Your task to perform on an android device: open a bookmark in the chrome app Image 0: 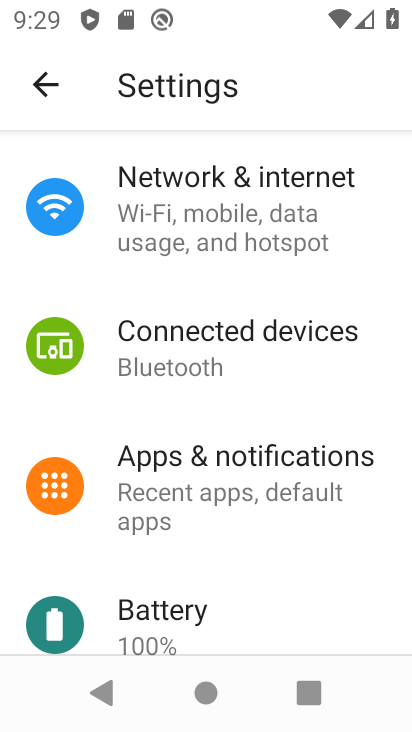
Step 0: press home button
Your task to perform on an android device: open a bookmark in the chrome app Image 1: 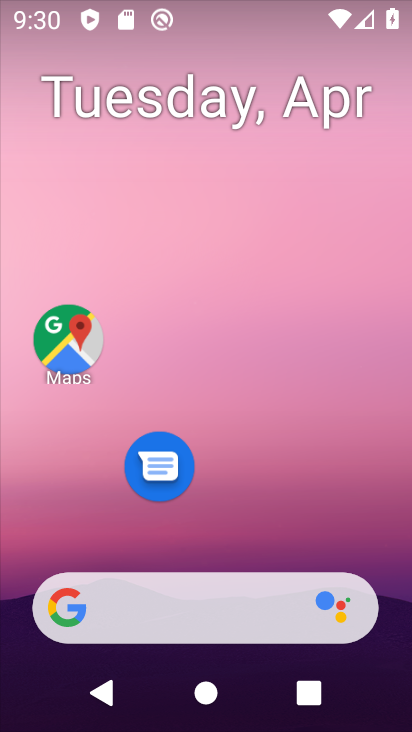
Step 1: drag from (279, 504) to (260, 68)
Your task to perform on an android device: open a bookmark in the chrome app Image 2: 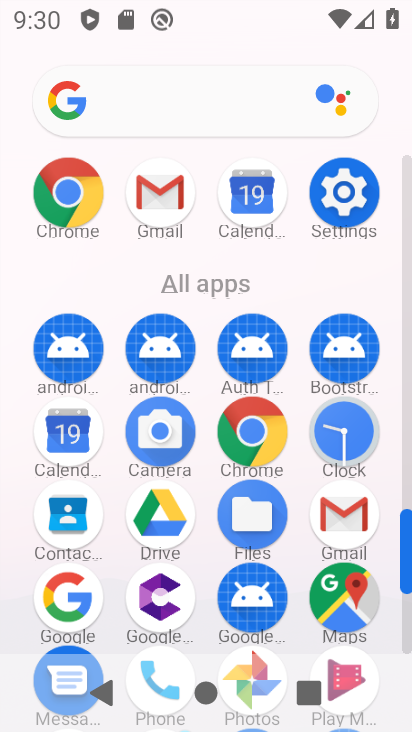
Step 2: click (255, 453)
Your task to perform on an android device: open a bookmark in the chrome app Image 3: 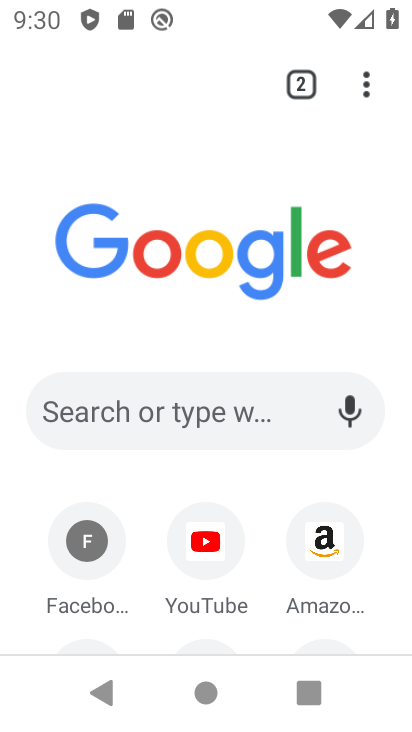
Step 3: click (374, 84)
Your task to perform on an android device: open a bookmark in the chrome app Image 4: 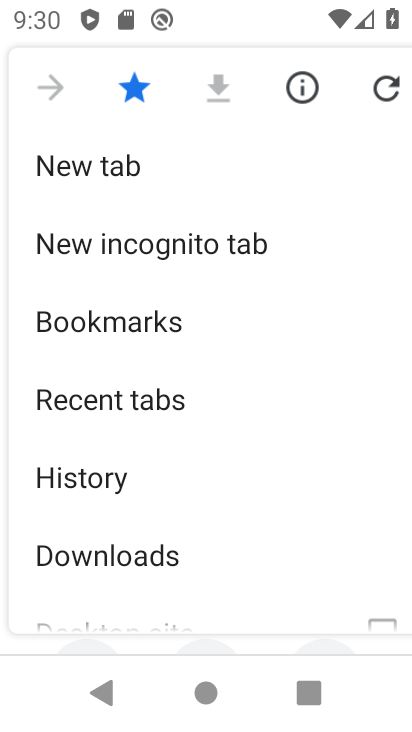
Step 4: click (168, 327)
Your task to perform on an android device: open a bookmark in the chrome app Image 5: 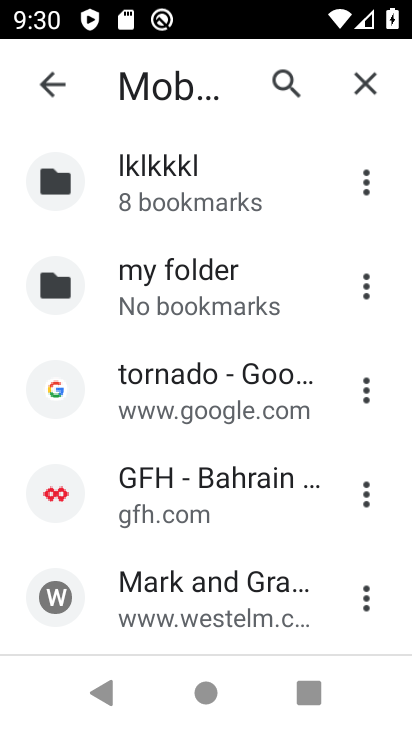
Step 5: task complete